Your task to perform on an android device: clear all cookies in the chrome app Image 0: 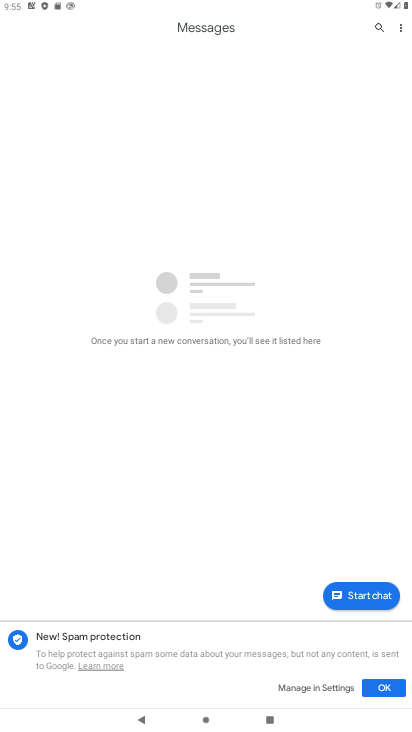
Step 0: press home button
Your task to perform on an android device: clear all cookies in the chrome app Image 1: 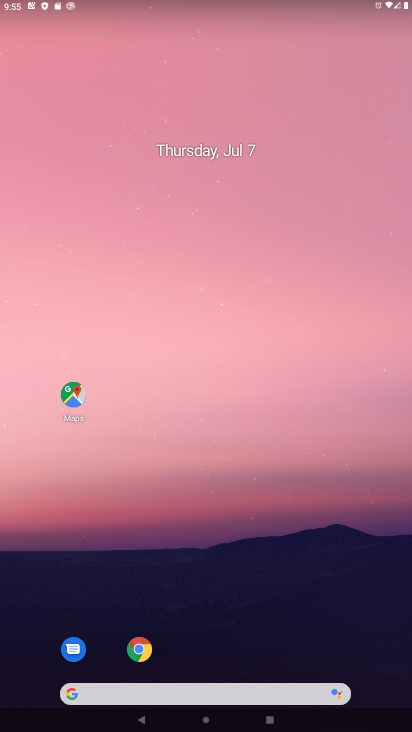
Step 1: drag from (227, 719) to (226, 193)
Your task to perform on an android device: clear all cookies in the chrome app Image 2: 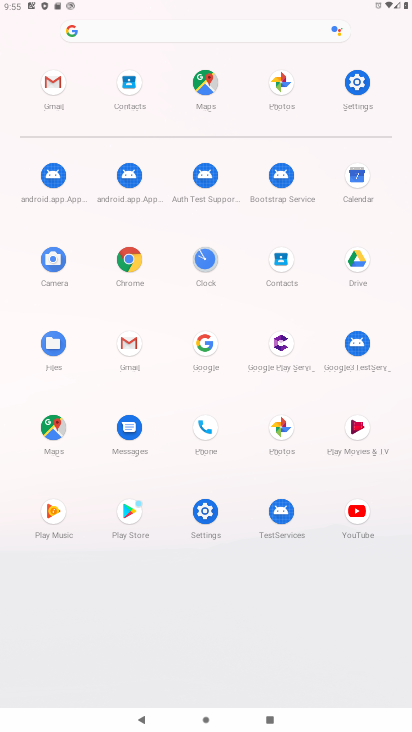
Step 2: click (127, 258)
Your task to perform on an android device: clear all cookies in the chrome app Image 3: 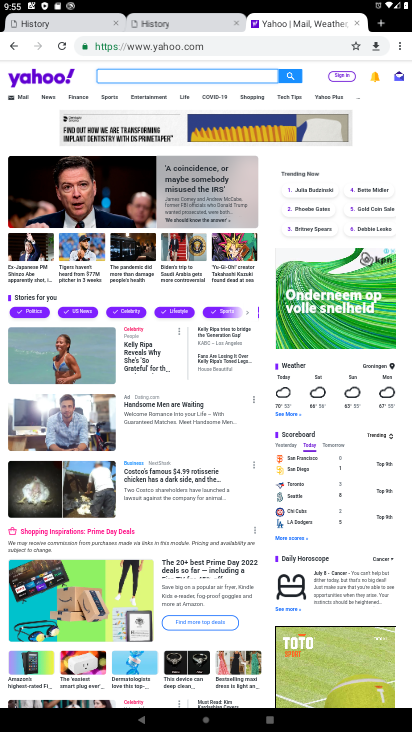
Step 3: click (400, 48)
Your task to perform on an android device: clear all cookies in the chrome app Image 4: 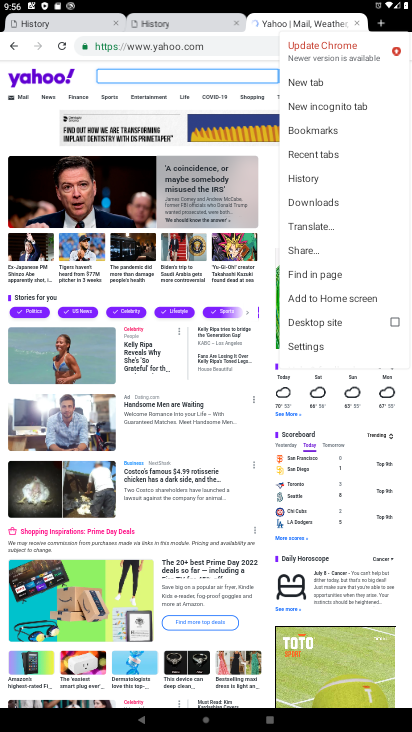
Step 4: click (313, 180)
Your task to perform on an android device: clear all cookies in the chrome app Image 5: 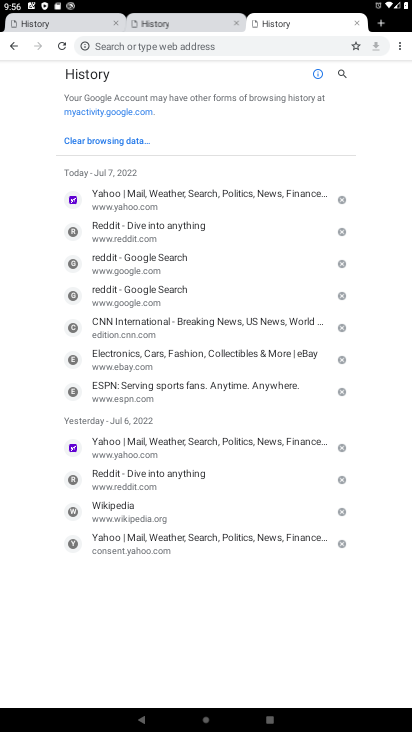
Step 5: click (114, 138)
Your task to perform on an android device: clear all cookies in the chrome app Image 6: 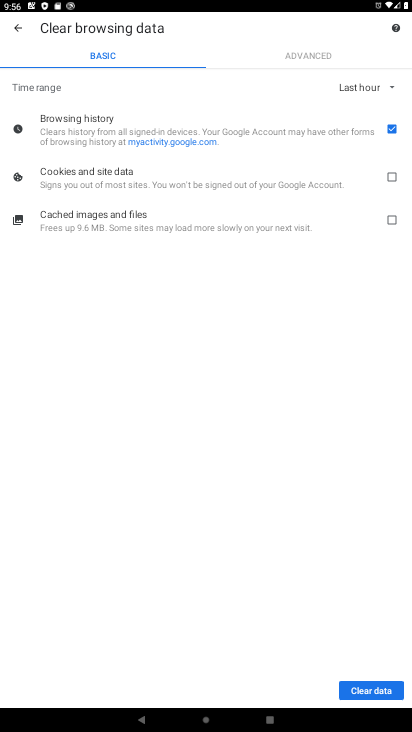
Step 6: click (394, 173)
Your task to perform on an android device: clear all cookies in the chrome app Image 7: 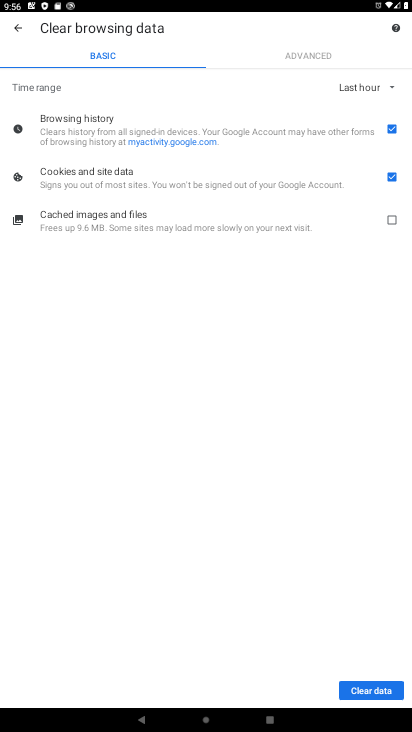
Step 7: click (393, 128)
Your task to perform on an android device: clear all cookies in the chrome app Image 8: 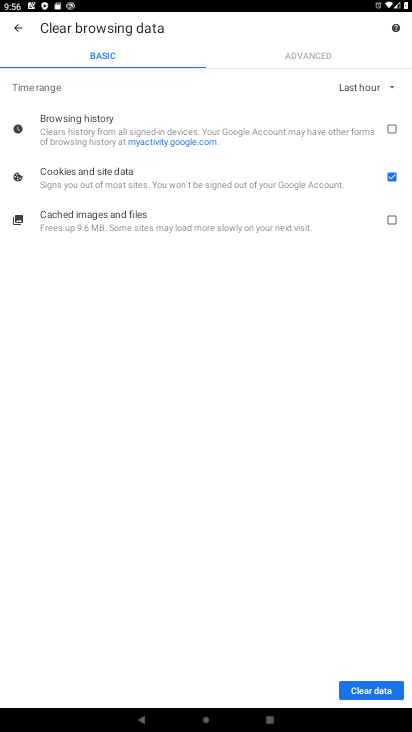
Step 8: click (366, 695)
Your task to perform on an android device: clear all cookies in the chrome app Image 9: 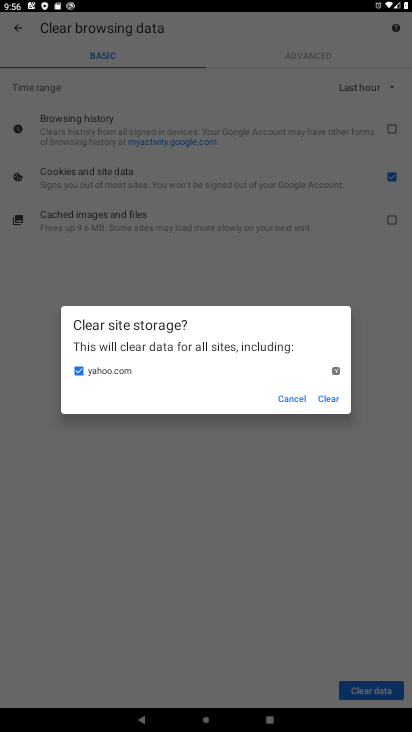
Step 9: click (333, 399)
Your task to perform on an android device: clear all cookies in the chrome app Image 10: 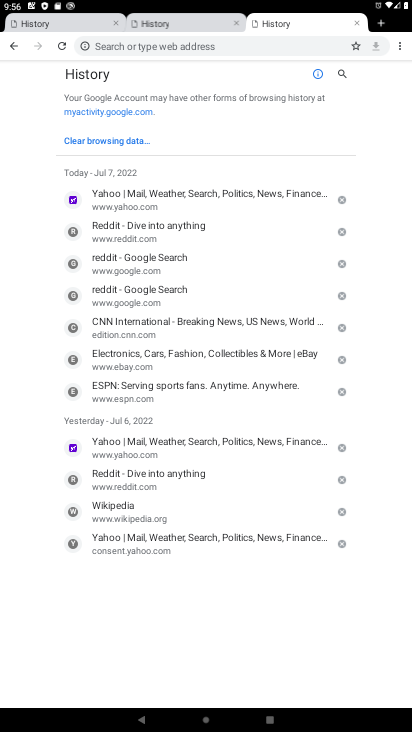
Step 10: task complete